Your task to perform on an android device: View the shopping cart on target. Add "lenovo thinkpad" to the cart on target, then select checkout. Image 0: 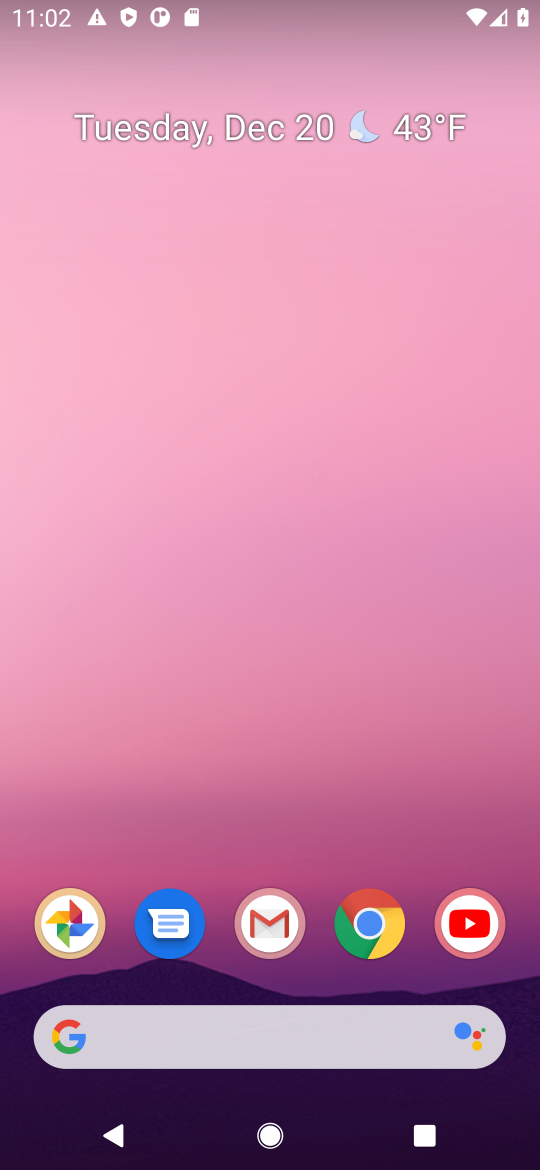
Step 0: task complete